Your task to perform on an android device: Clear the cart on amazon. Search for bose soundlink on amazon, select the first entry, and add it to the cart. Image 0: 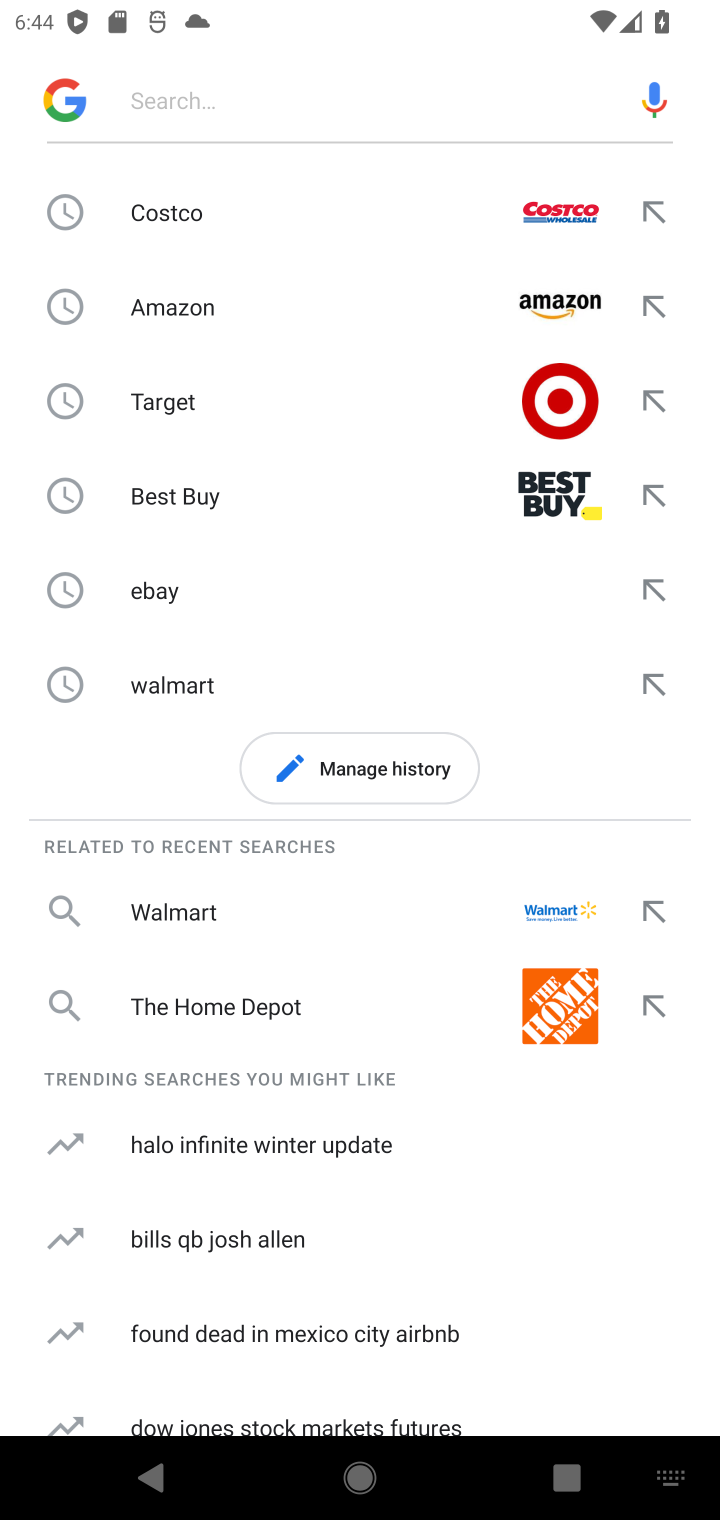
Step 0: type "amazon"
Your task to perform on an android device: Clear the cart on amazon. Search for bose soundlink on amazon, select the first entry, and add it to the cart. Image 1: 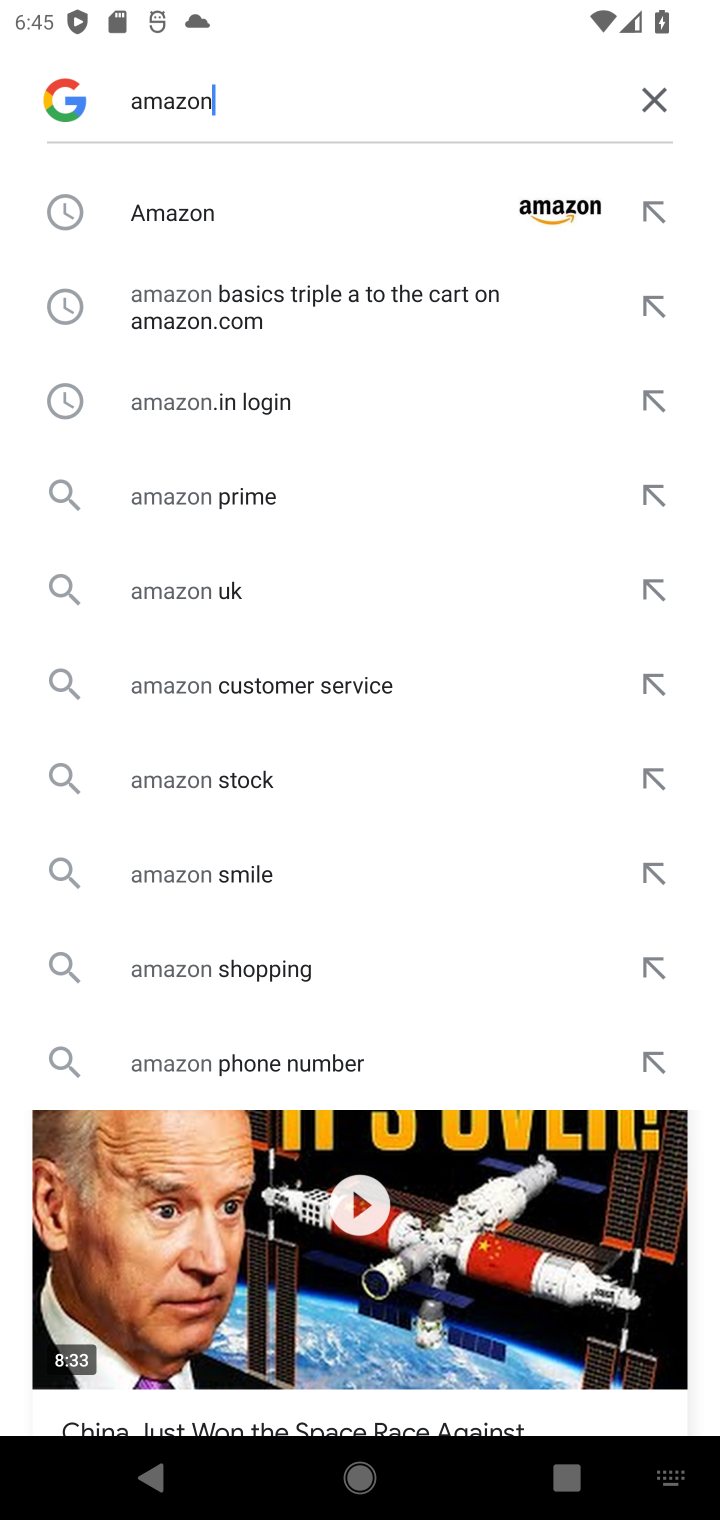
Step 1: click (198, 311)
Your task to perform on an android device: Clear the cart on amazon. Search for bose soundlink on amazon, select the first entry, and add it to the cart. Image 2: 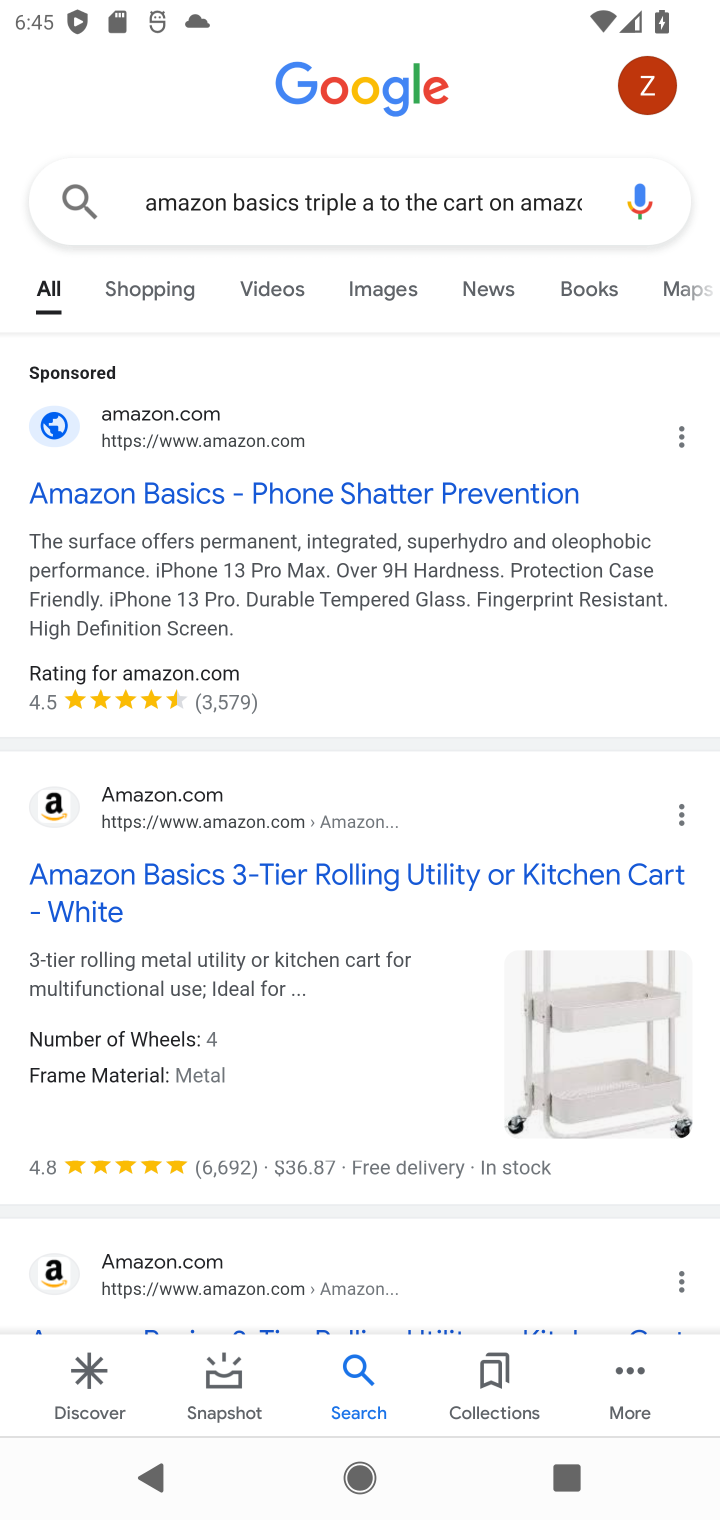
Step 2: click (143, 873)
Your task to perform on an android device: Clear the cart on amazon. Search for bose soundlink on amazon, select the first entry, and add it to the cart. Image 3: 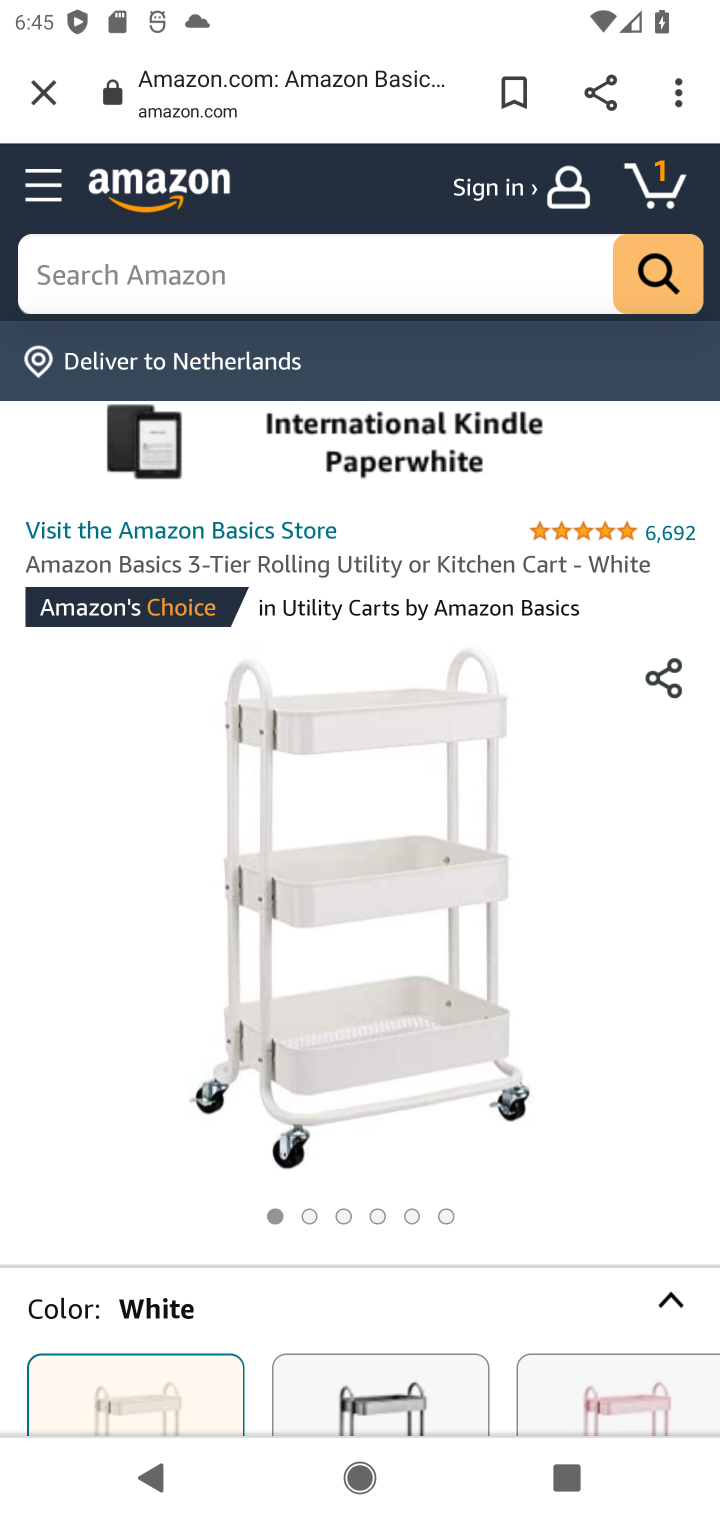
Step 3: click (204, 272)
Your task to perform on an android device: Clear the cart on amazon. Search for bose soundlink on amazon, select the first entry, and add it to the cart. Image 4: 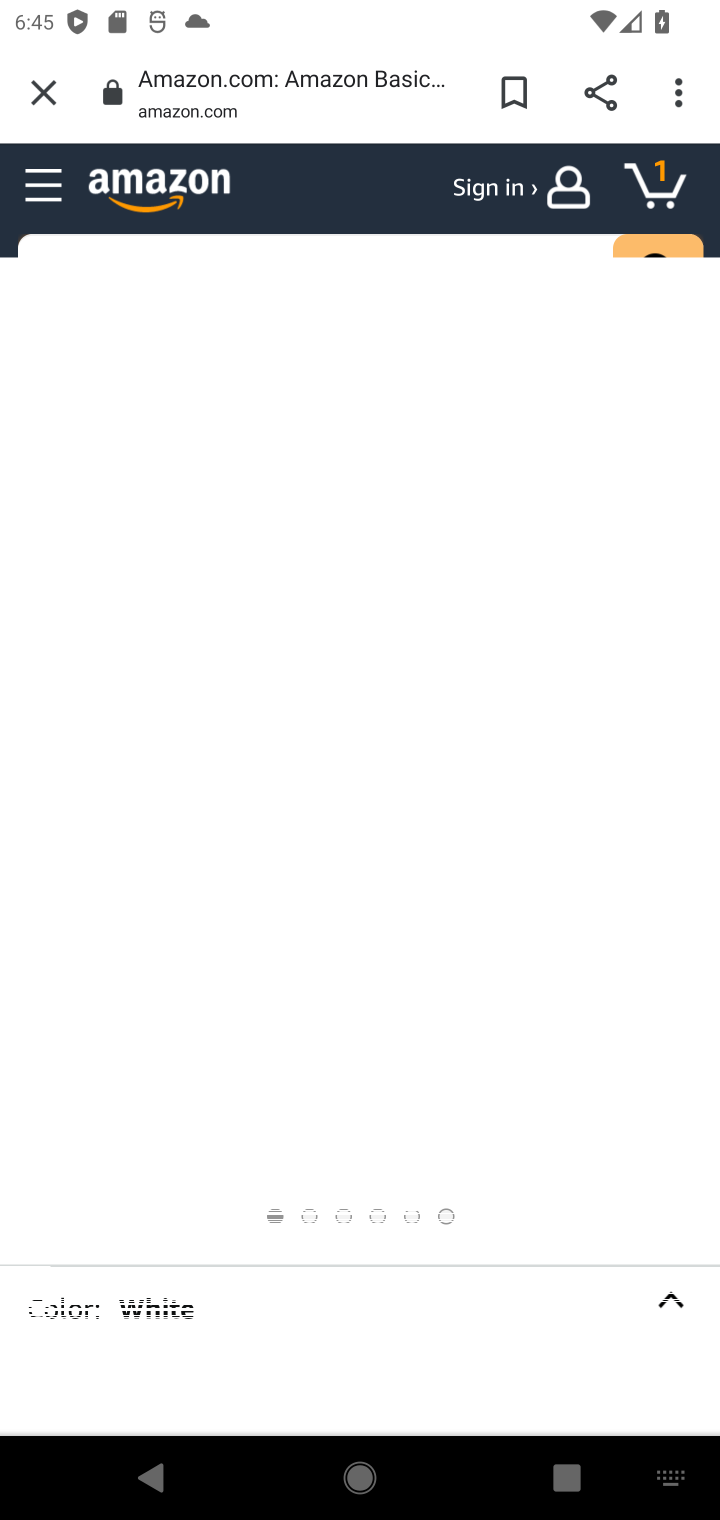
Step 4: type "bose soundlink"
Your task to perform on an android device: Clear the cart on amazon. Search for bose soundlink on amazon, select the first entry, and add it to the cart. Image 5: 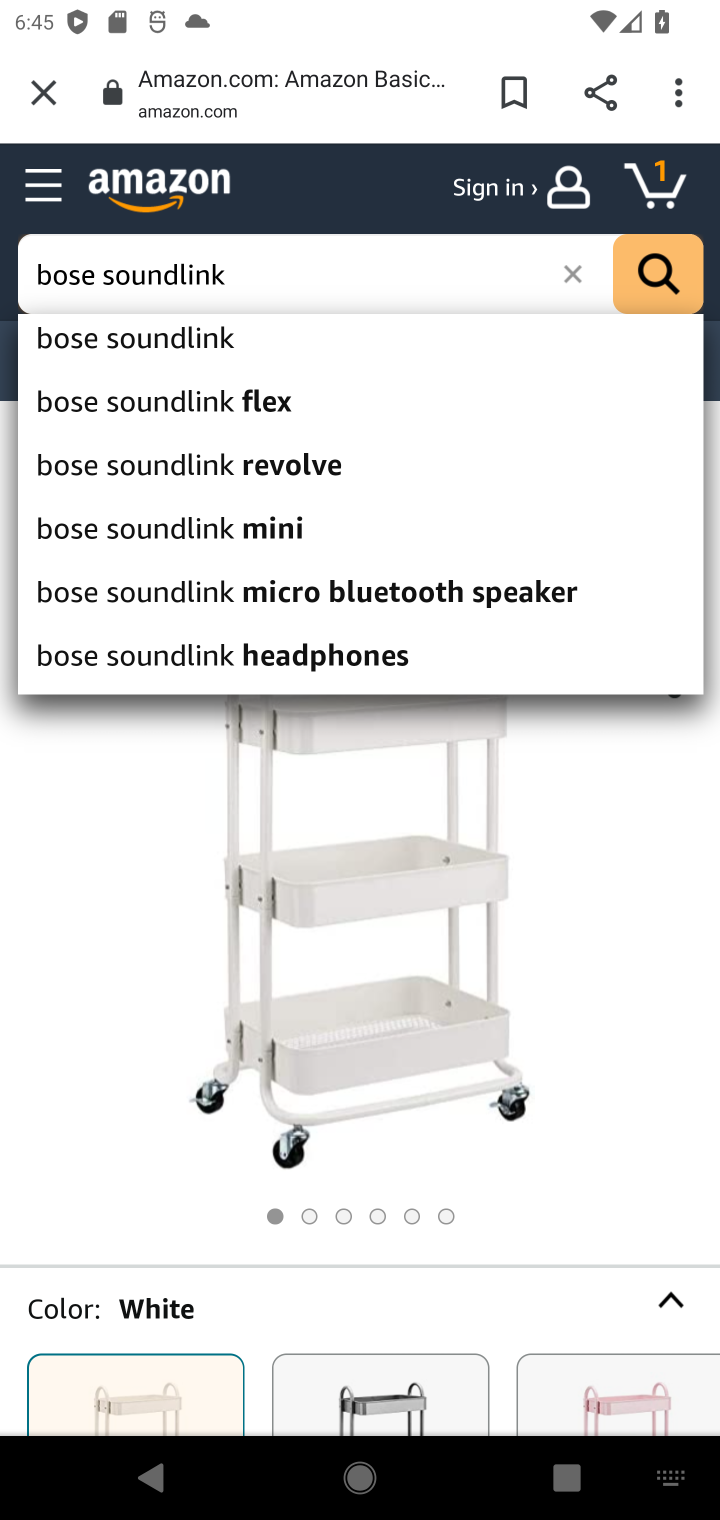
Step 5: click (152, 332)
Your task to perform on an android device: Clear the cart on amazon. Search for bose soundlink on amazon, select the first entry, and add it to the cart. Image 6: 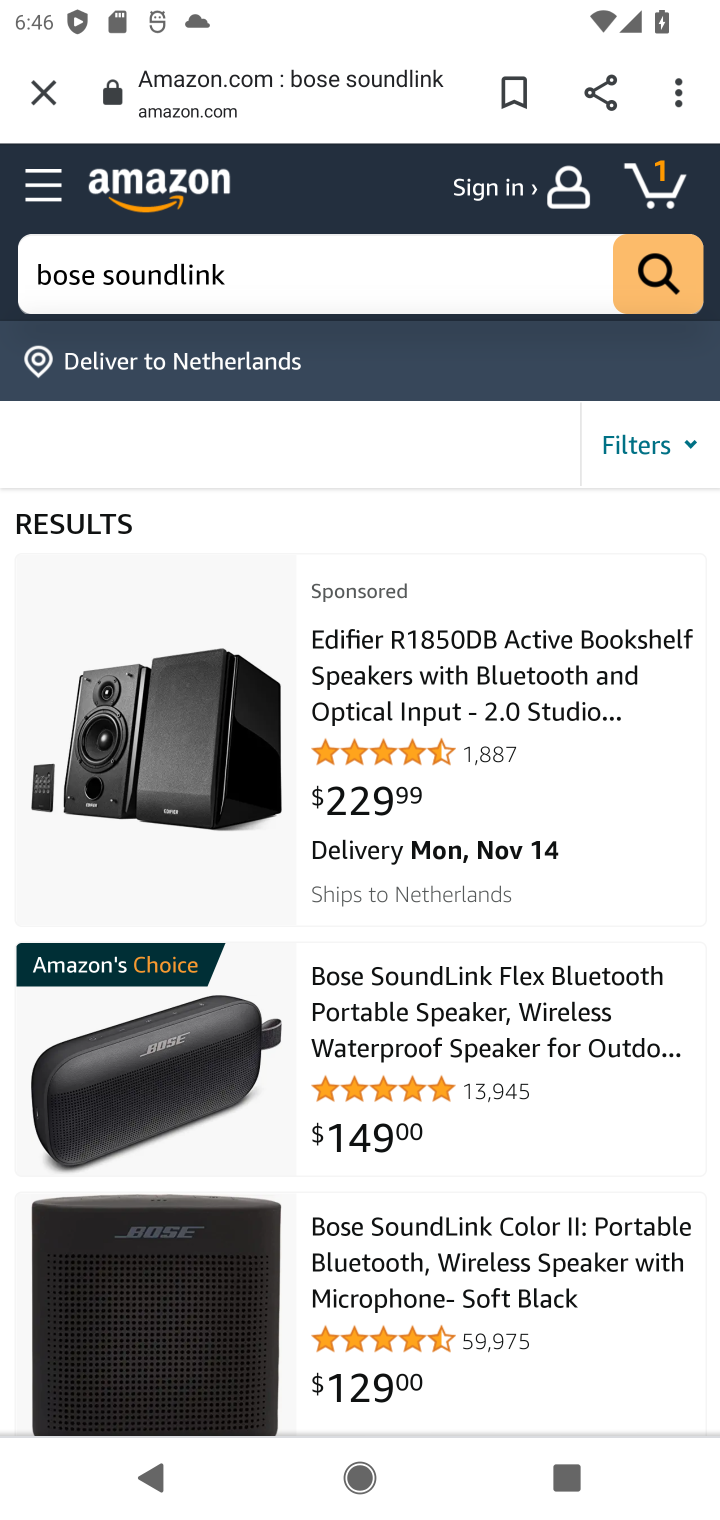
Step 6: click (376, 1018)
Your task to perform on an android device: Clear the cart on amazon. Search for bose soundlink on amazon, select the first entry, and add it to the cart. Image 7: 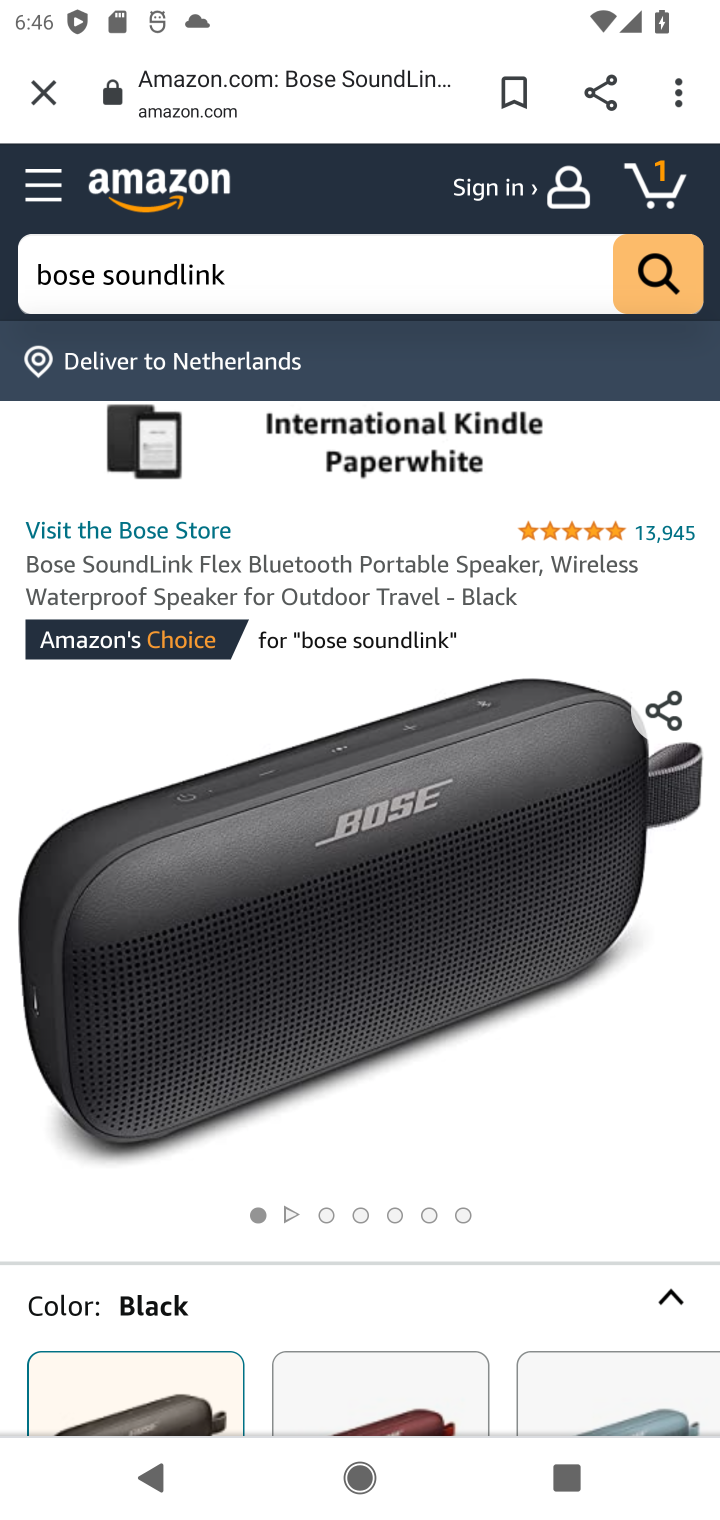
Step 7: drag from (324, 982) to (437, 918)
Your task to perform on an android device: Clear the cart on amazon. Search for bose soundlink on amazon, select the first entry, and add it to the cart. Image 8: 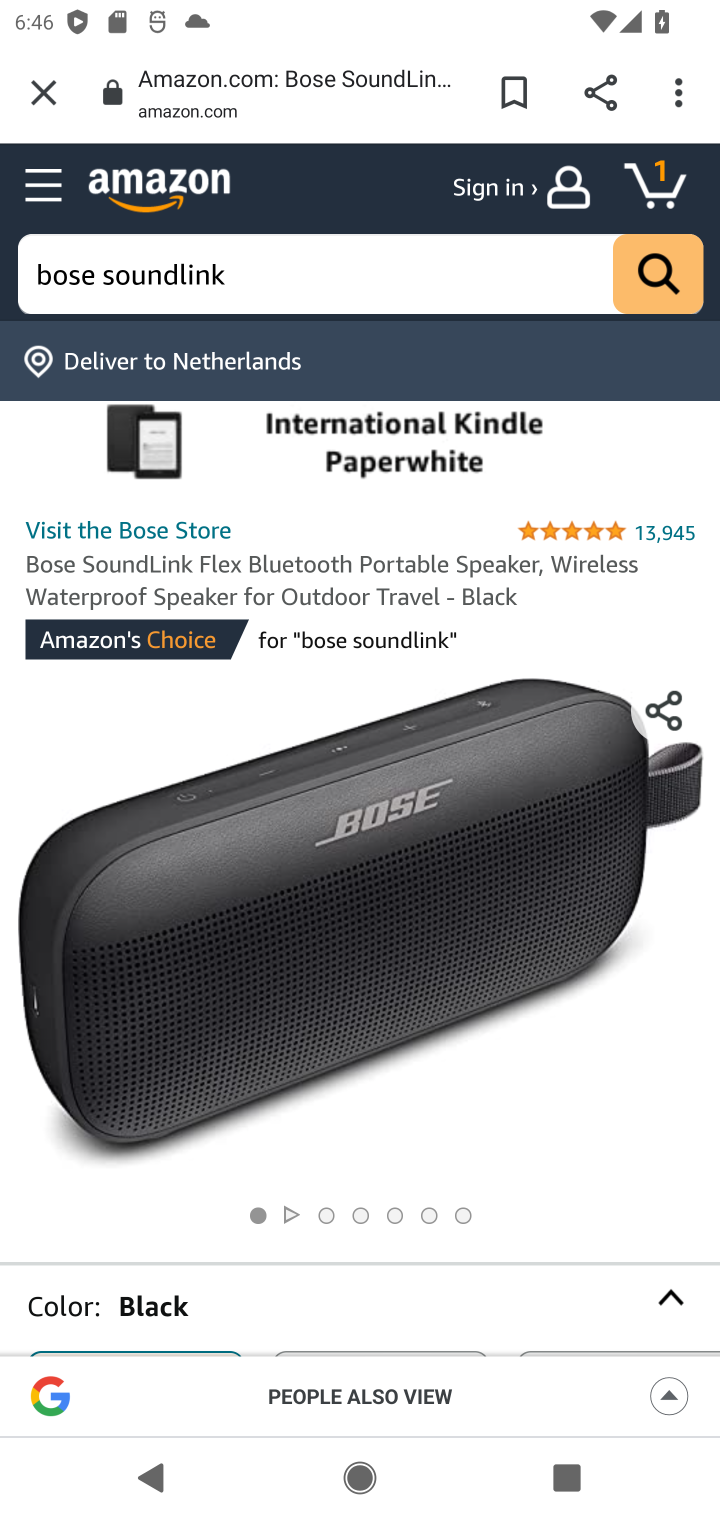
Step 8: drag from (420, 1092) to (413, 531)
Your task to perform on an android device: Clear the cart on amazon. Search for bose soundlink on amazon, select the first entry, and add it to the cart. Image 9: 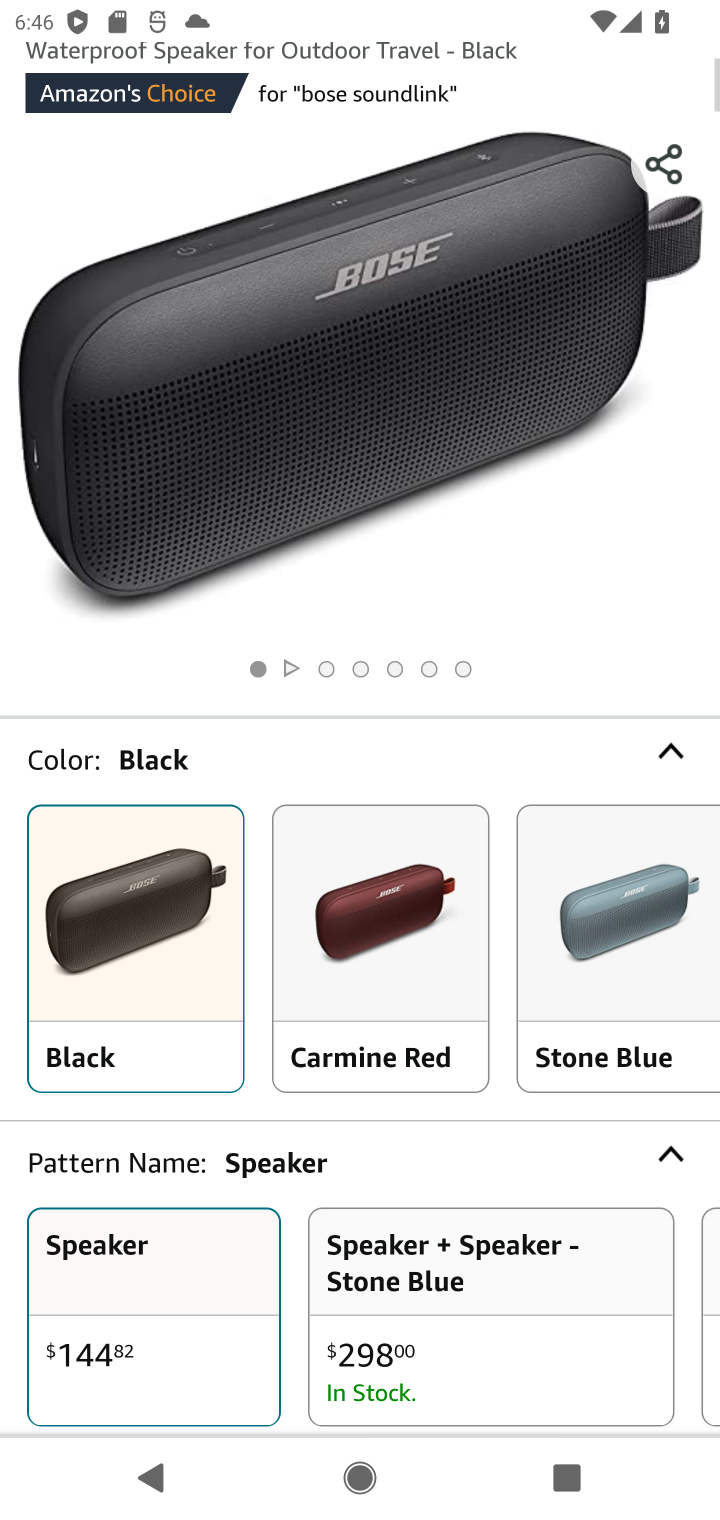
Step 9: drag from (151, 1238) to (214, 477)
Your task to perform on an android device: Clear the cart on amazon. Search for bose soundlink on amazon, select the first entry, and add it to the cart. Image 10: 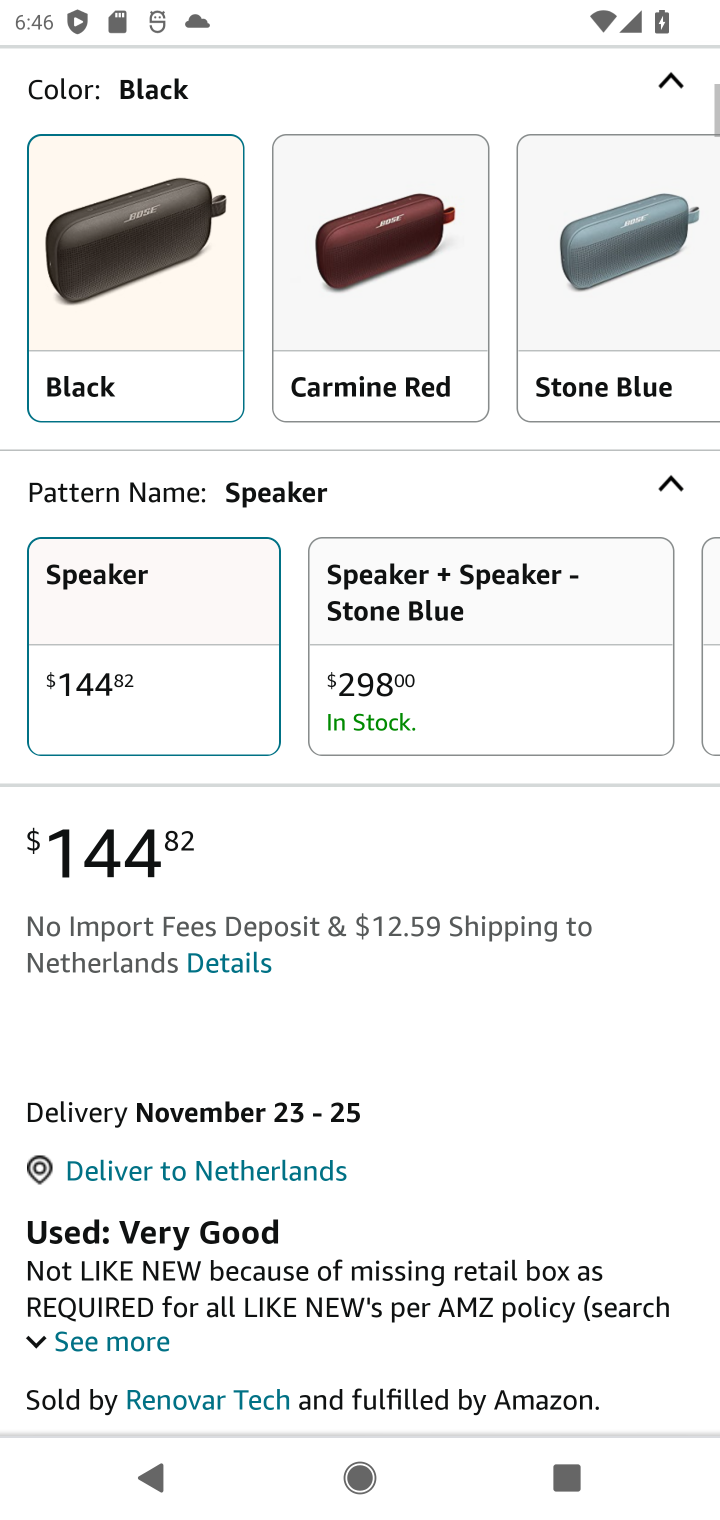
Step 10: drag from (192, 1268) to (345, 709)
Your task to perform on an android device: Clear the cart on amazon. Search for bose soundlink on amazon, select the first entry, and add it to the cart. Image 11: 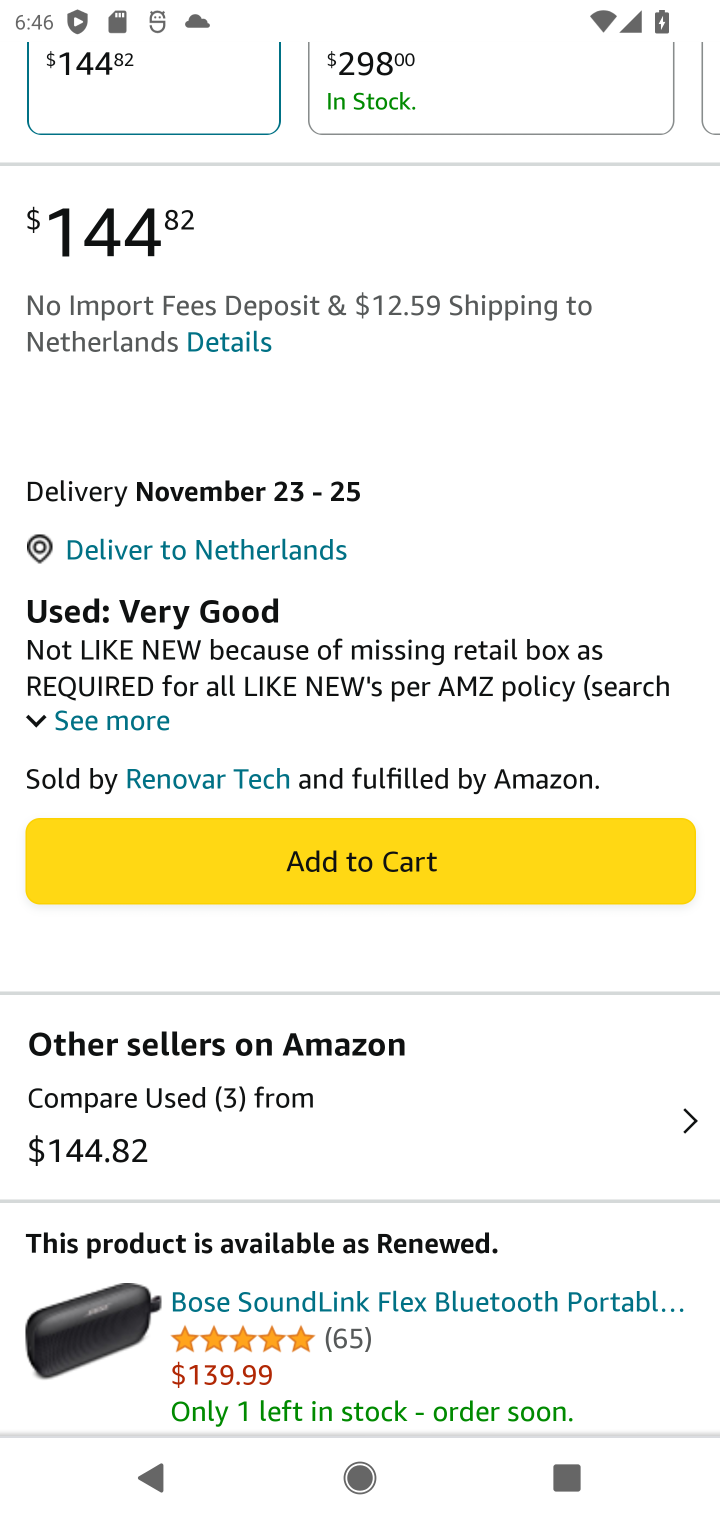
Step 11: click (311, 884)
Your task to perform on an android device: Clear the cart on amazon. Search for bose soundlink on amazon, select the first entry, and add it to the cart. Image 12: 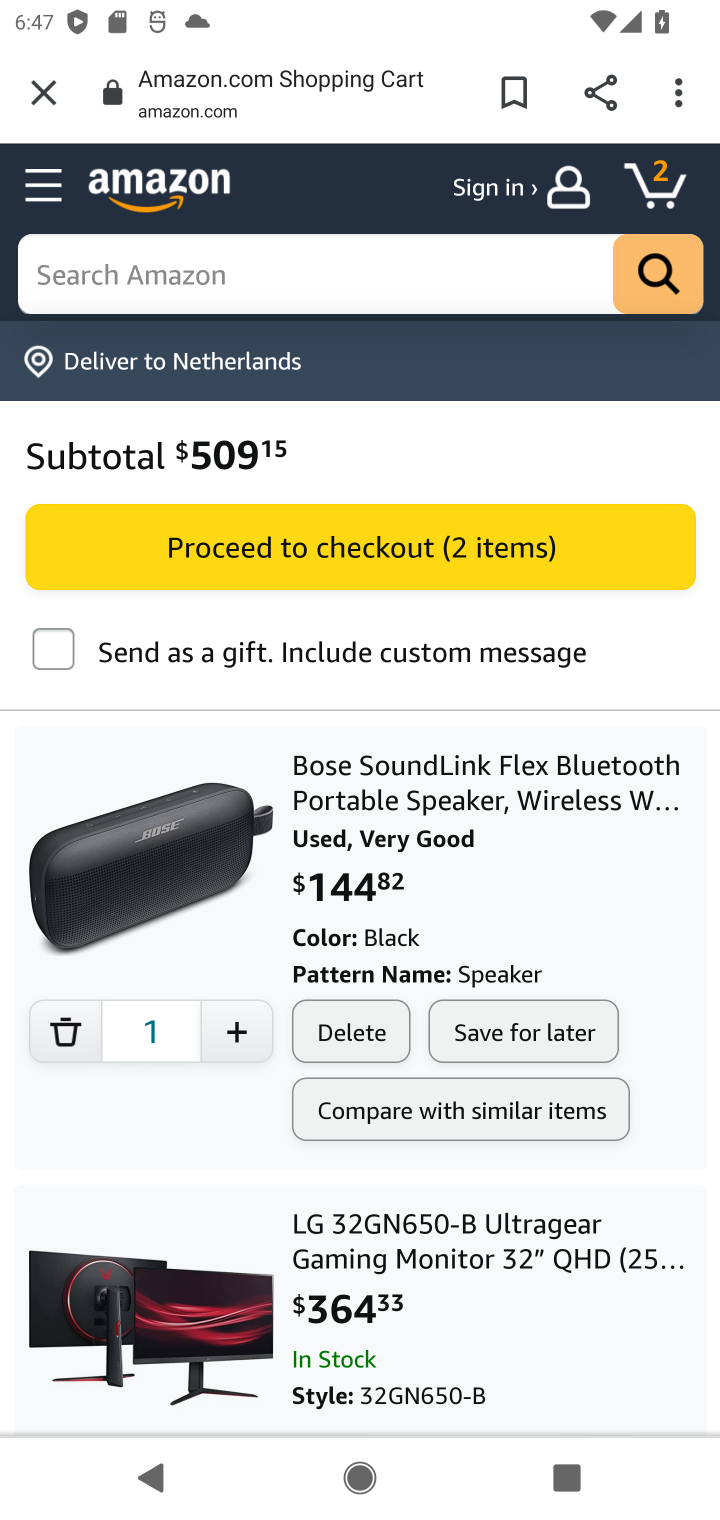
Step 12: task complete